Your task to perform on an android device: What's on the menu at Five Guys? Image 0: 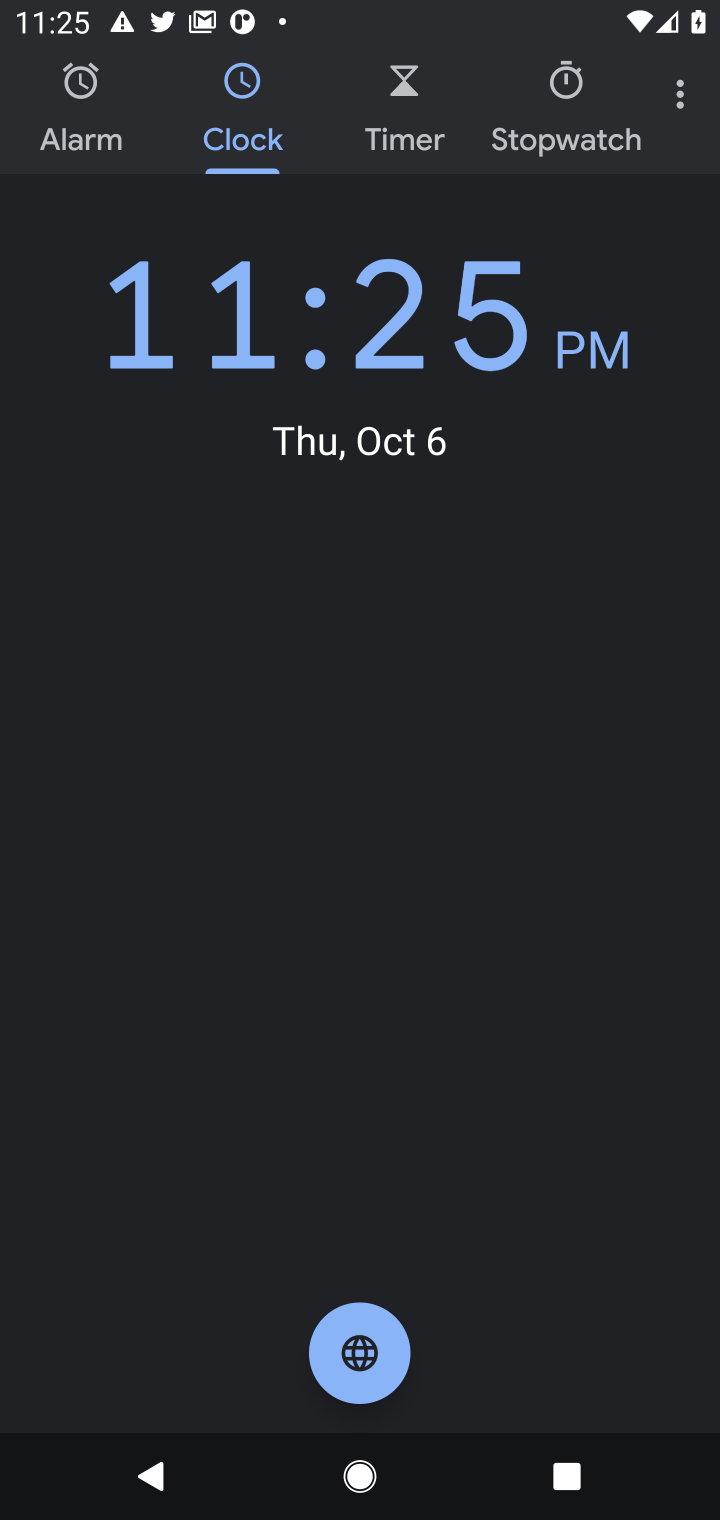
Step 0: press home button
Your task to perform on an android device: What's on the menu at Five Guys? Image 1: 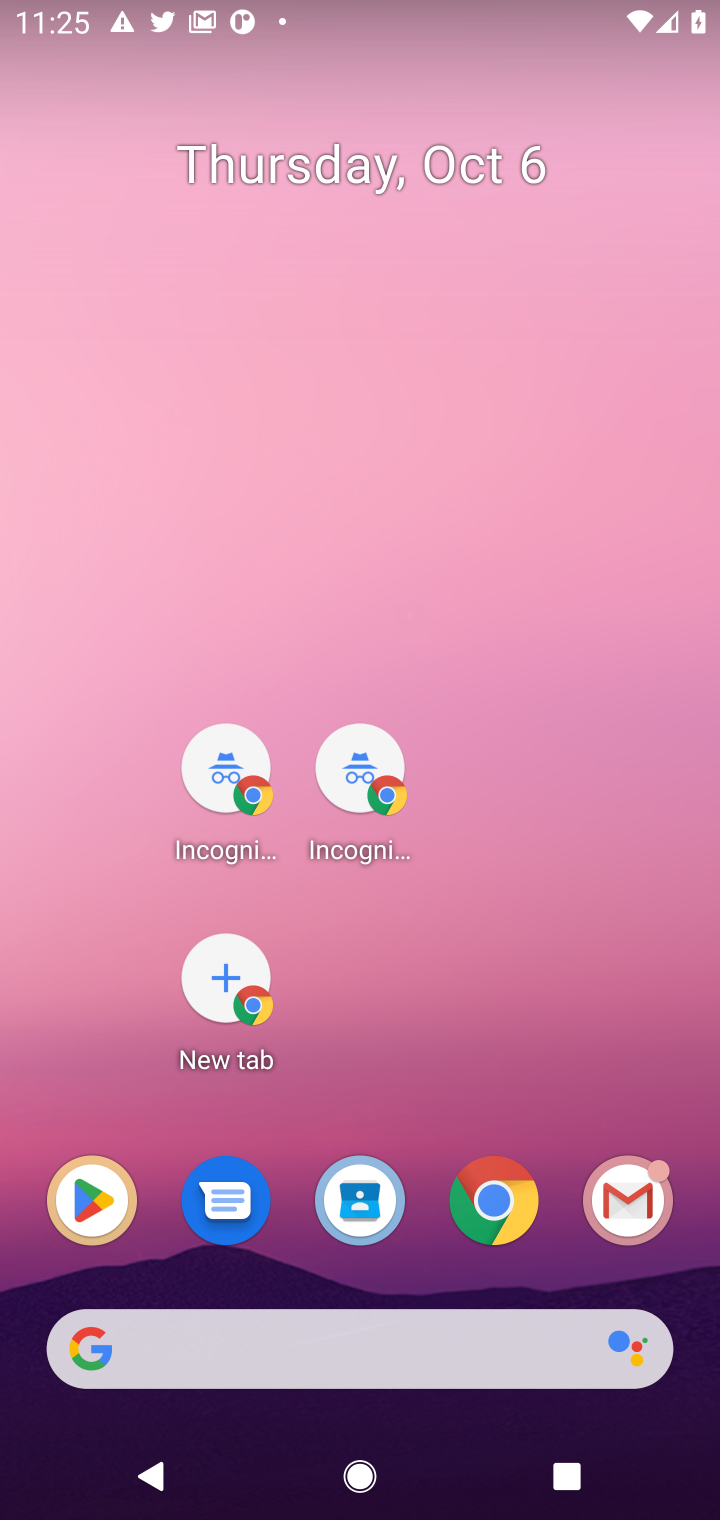
Step 1: click (504, 1189)
Your task to perform on an android device: What's on the menu at Five Guys? Image 2: 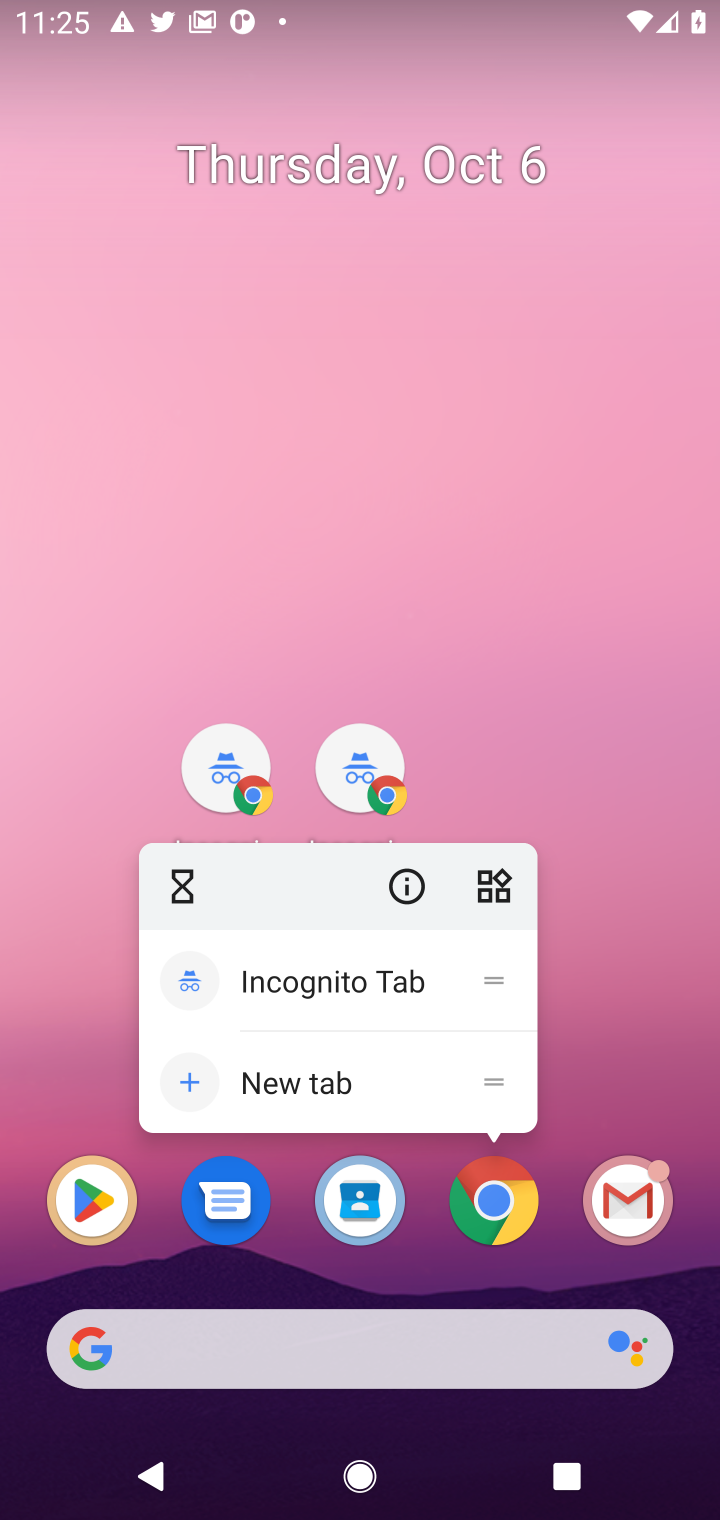
Step 2: press back button
Your task to perform on an android device: What's on the menu at Five Guys? Image 3: 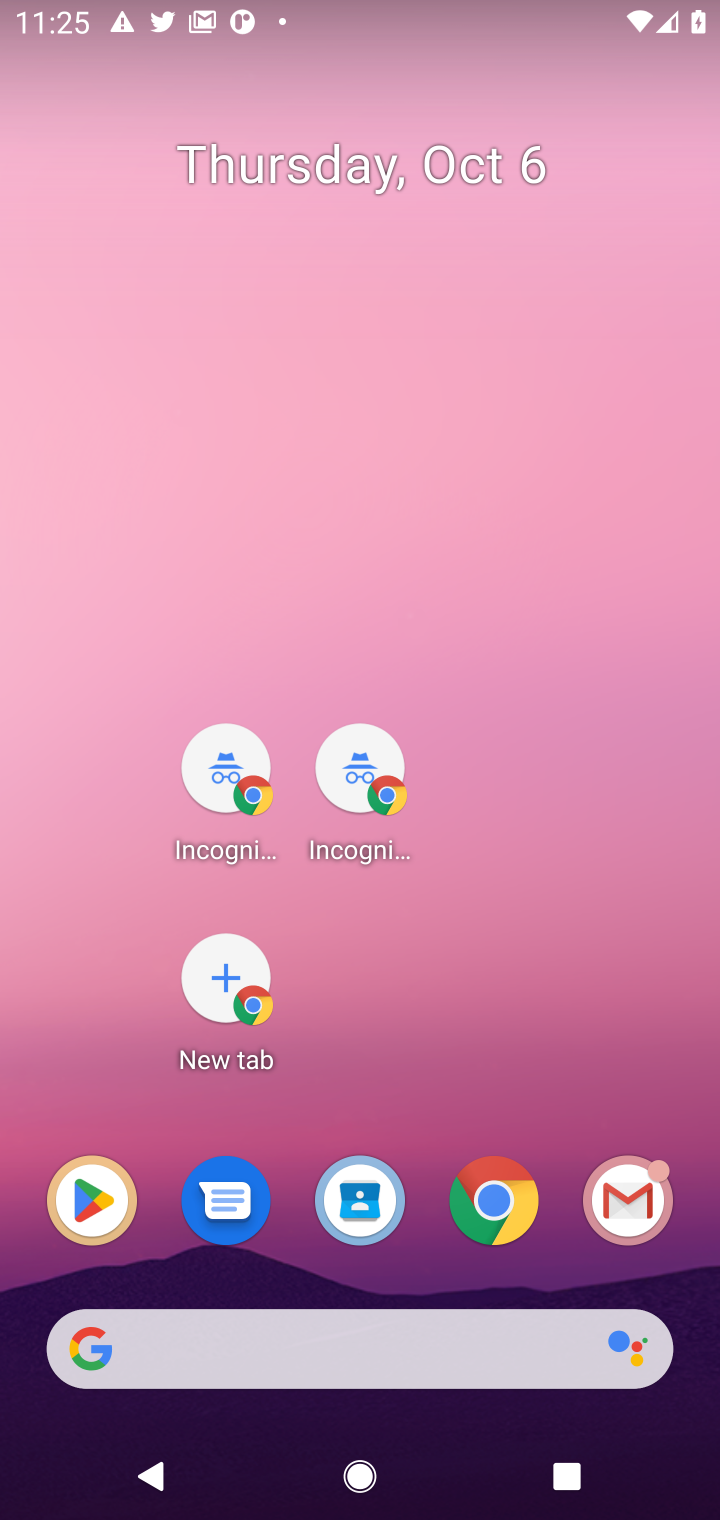
Step 3: press back button
Your task to perform on an android device: What's on the menu at Five Guys? Image 4: 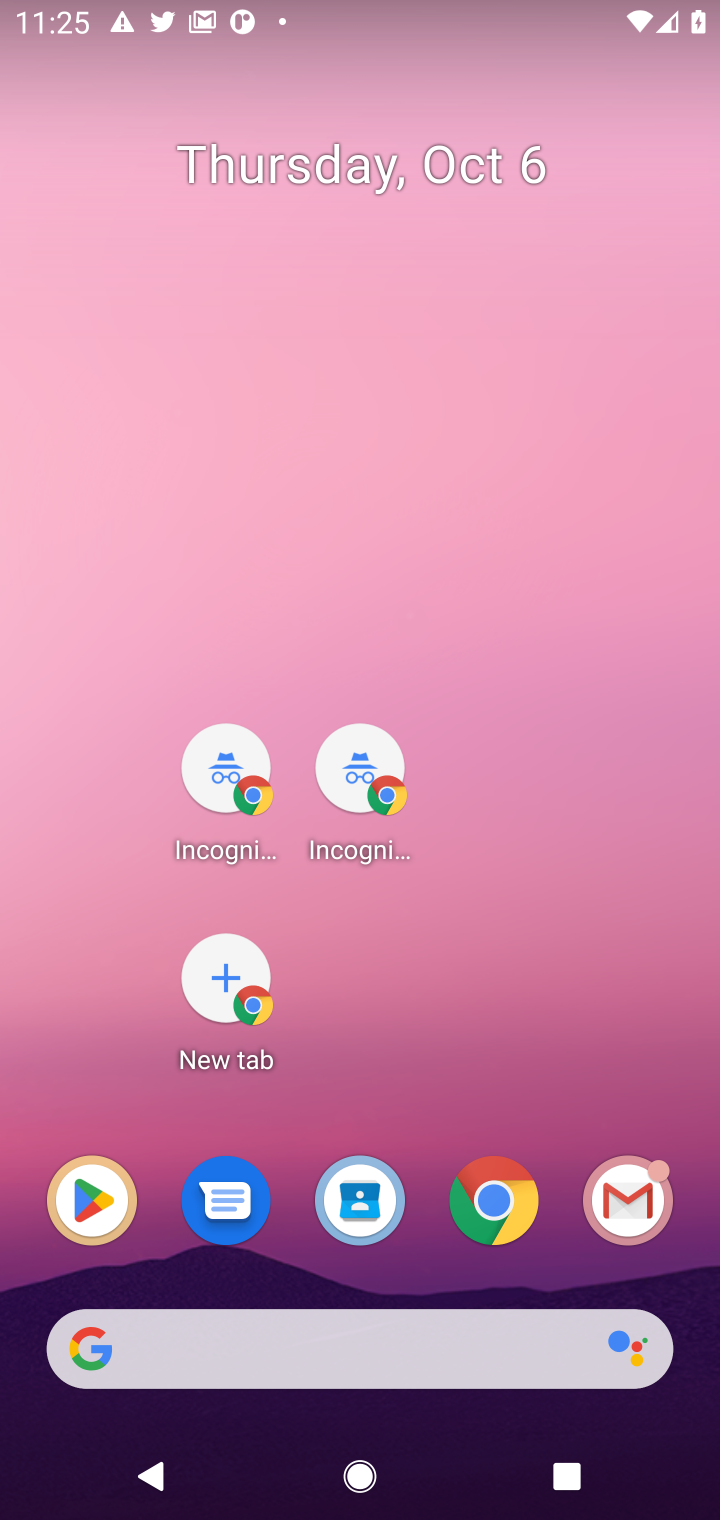
Step 4: click (472, 1204)
Your task to perform on an android device: What's on the menu at Five Guys? Image 5: 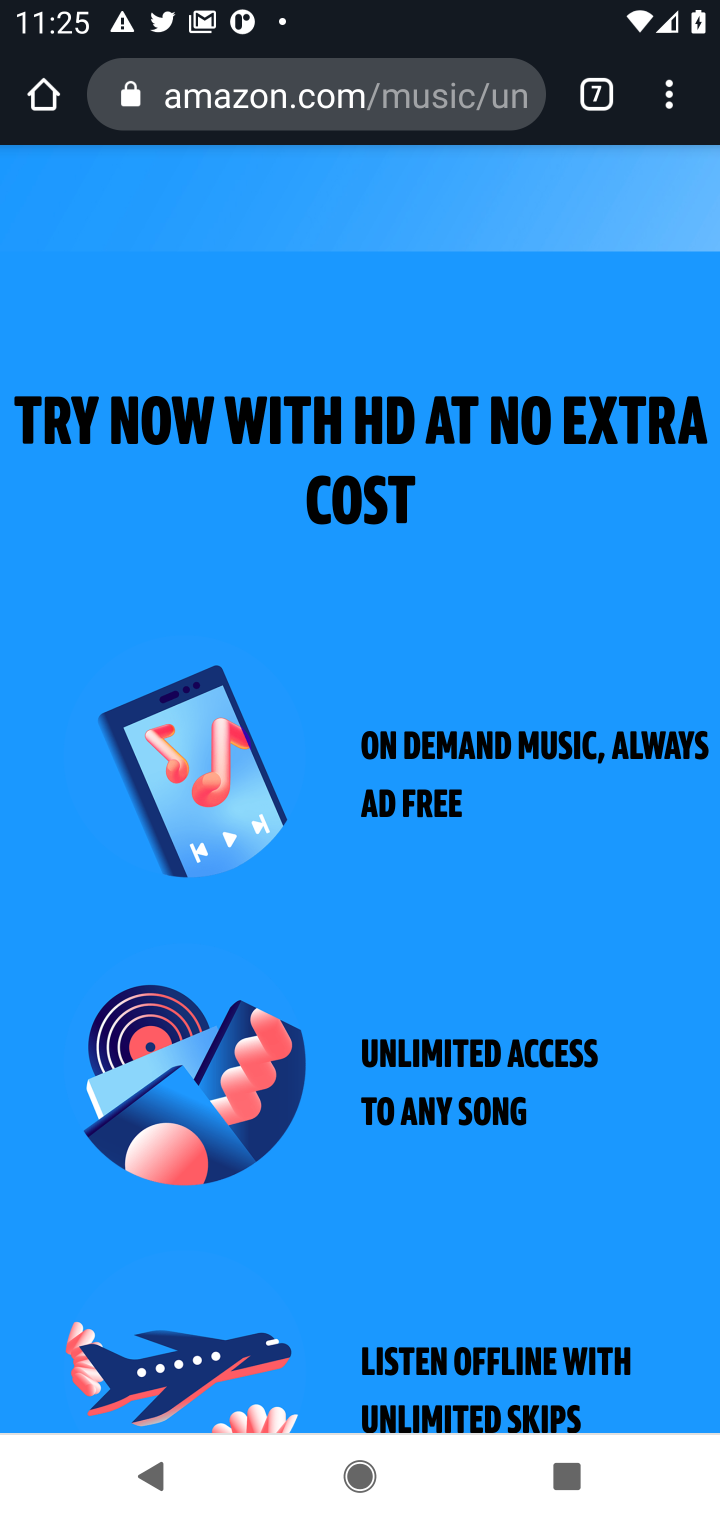
Step 5: click (464, 94)
Your task to perform on an android device: What's on the menu at Five Guys? Image 6: 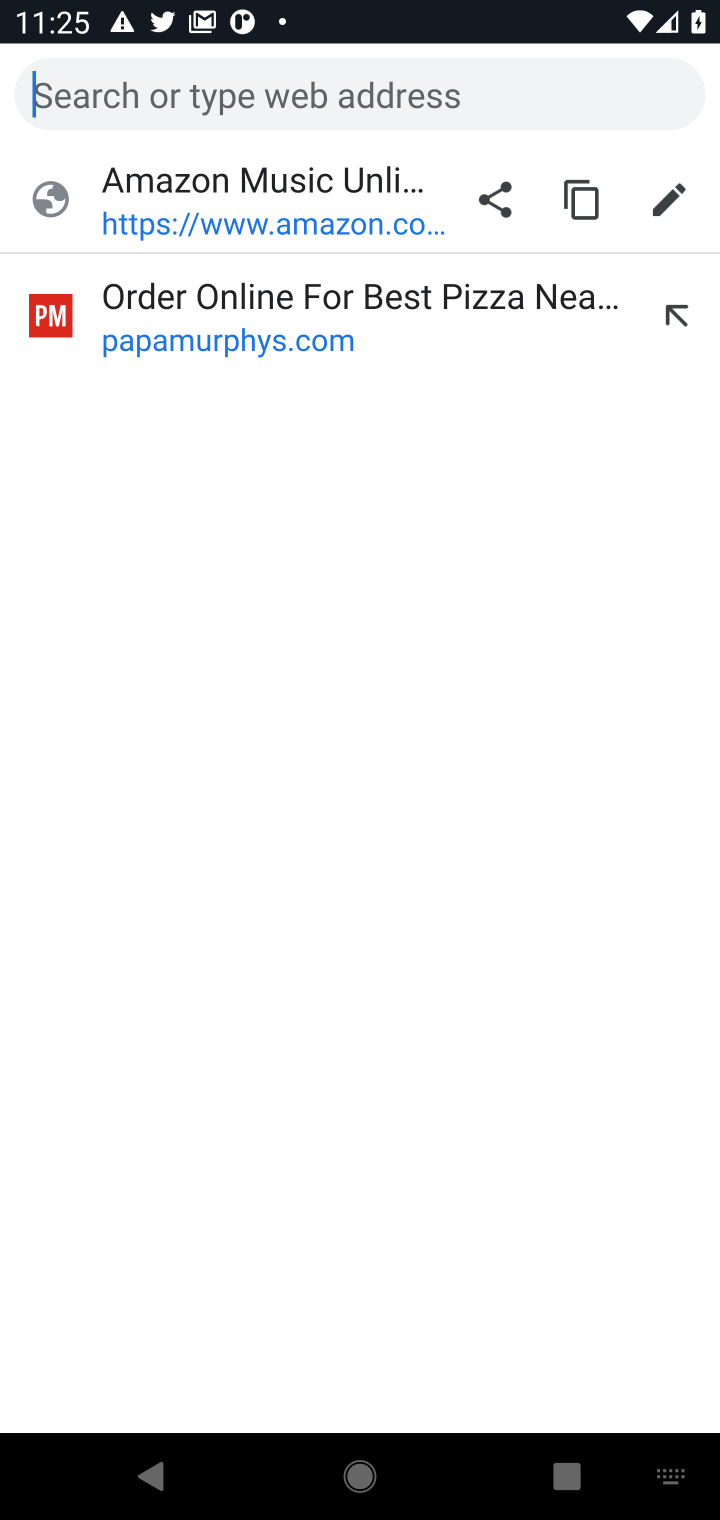
Step 6: type "whats on the menu at five guys"
Your task to perform on an android device: What's on the menu at Five Guys? Image 7: 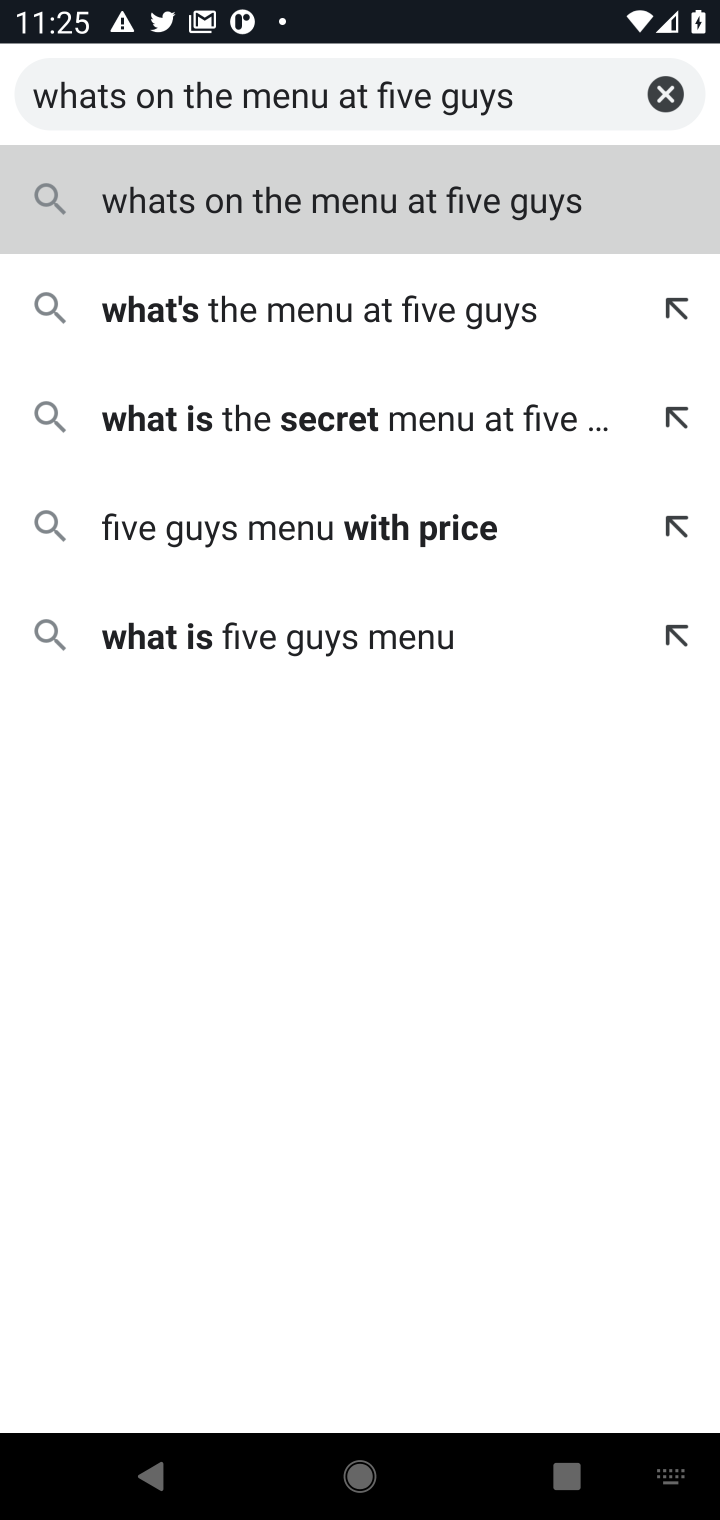
Step 7: type ""
Your task to perform on an android device: What's on the menu at Five Guys? Image 8: 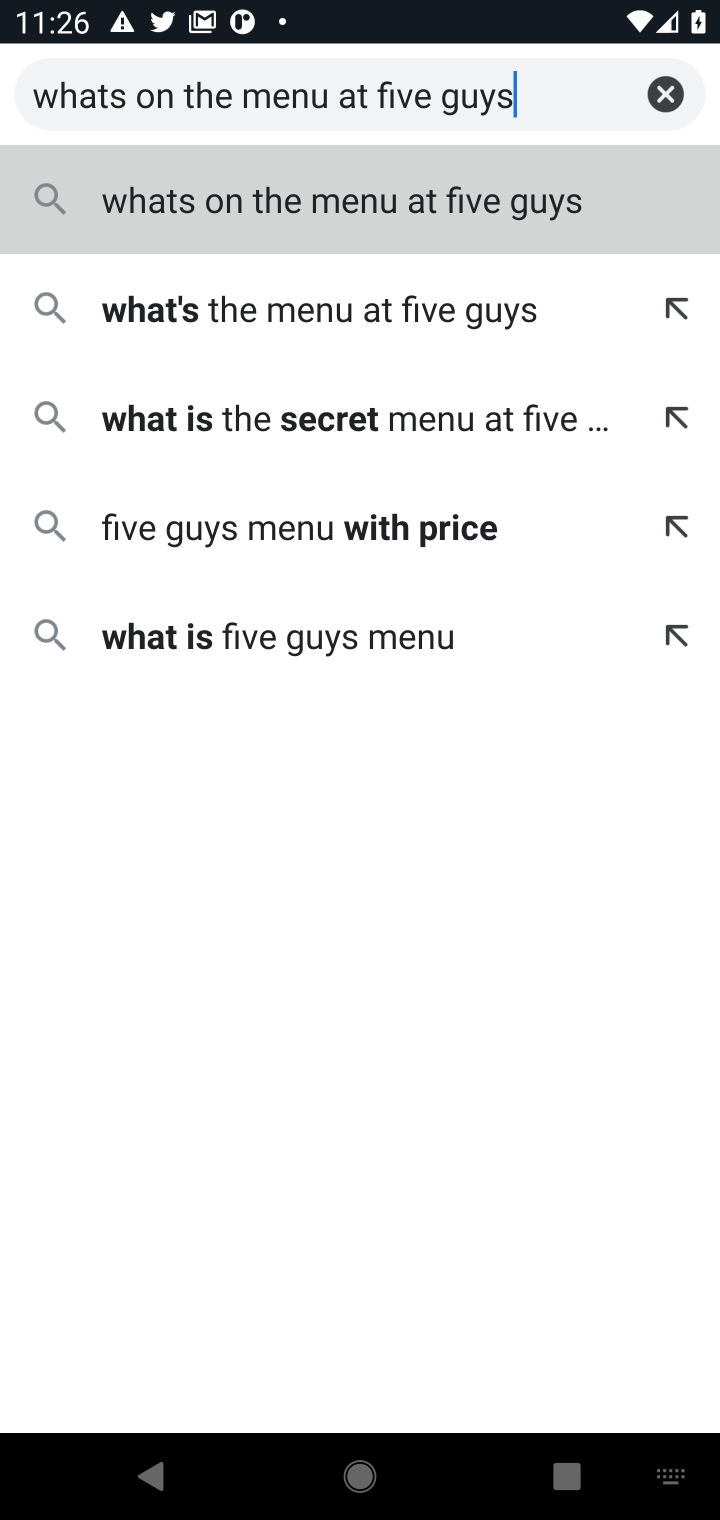
Step 8: click (372, 203)
Your task to perform on an android device: What's on the menu at Five Guys? Image 9: 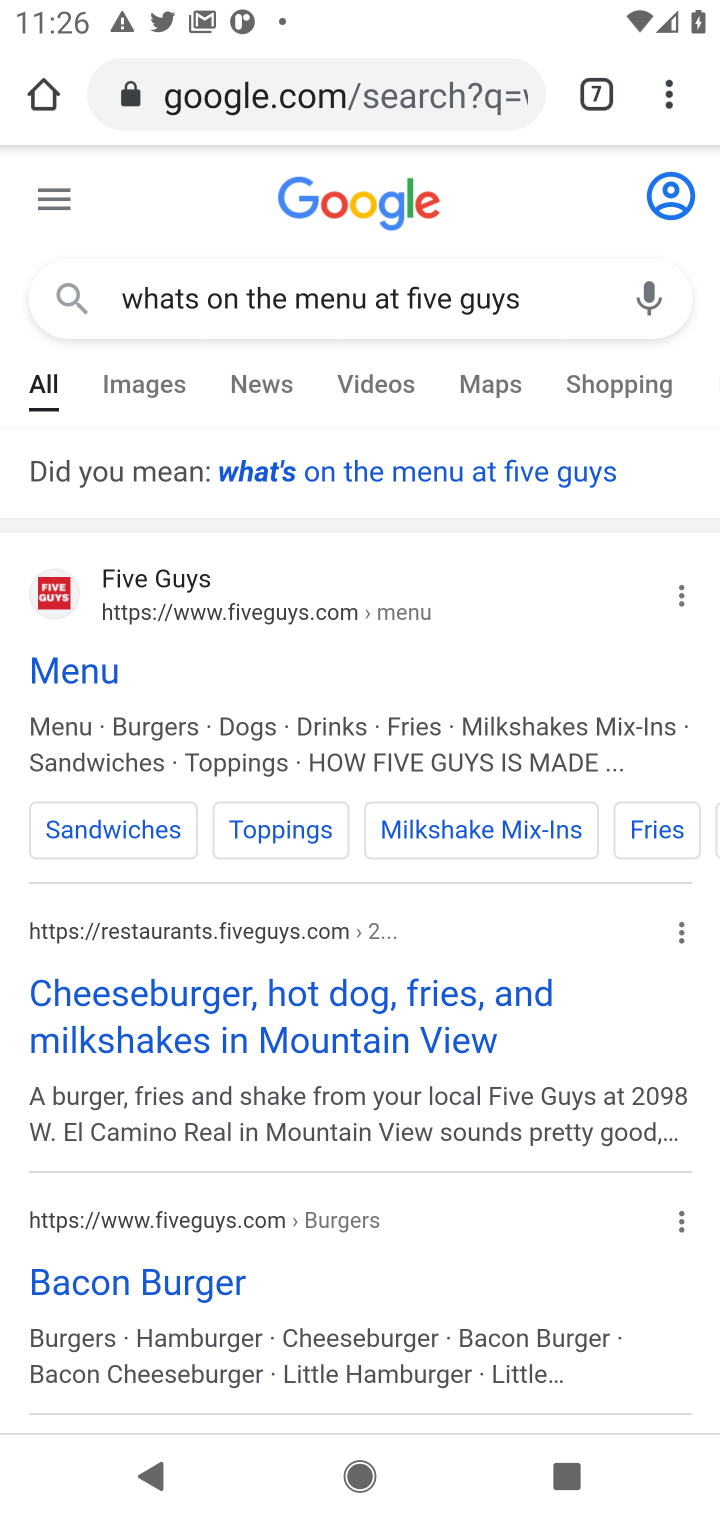
Step 9: drag from (452, 1177) to (468, 775)
Your task to perform on an android device: What's on the menu at Five Guys? Image 10: 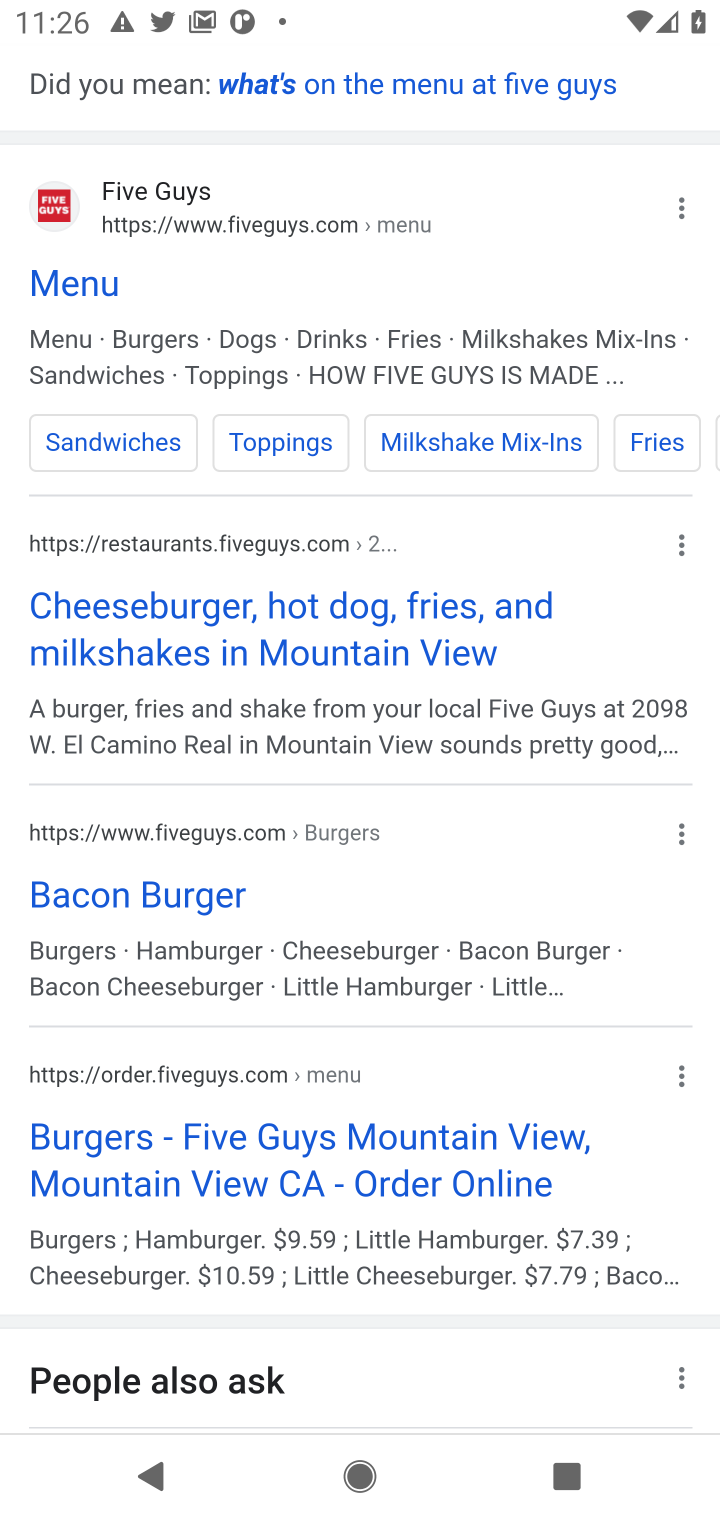
Step 10: drag from (434, 932) to (519, 508)
Your task to perform on an android device: What's on the menu at Five Guys? Image 11: 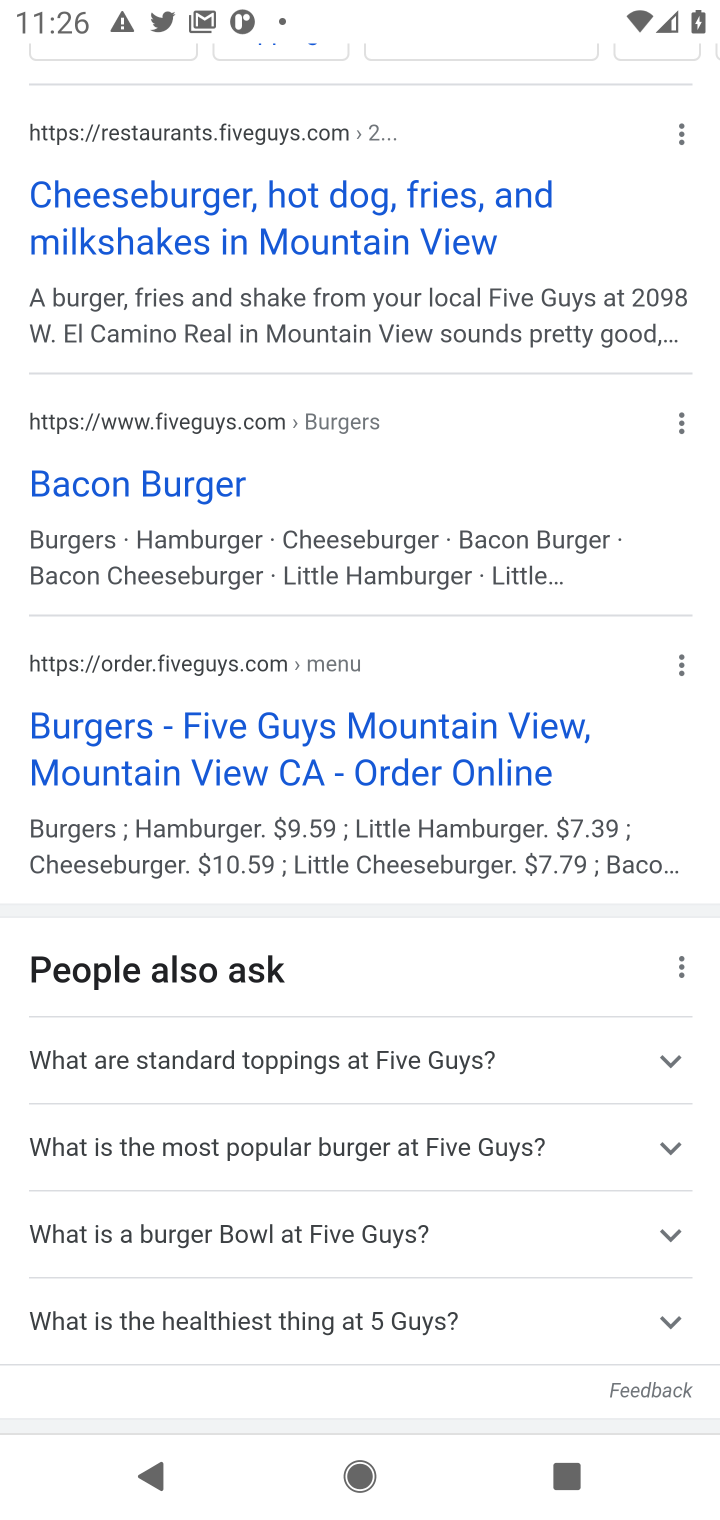
Step 11: drag from (346, 289) to (478, 1127)
Your task to perform on an android device: What's on the menu at Five Guys? Image 12: 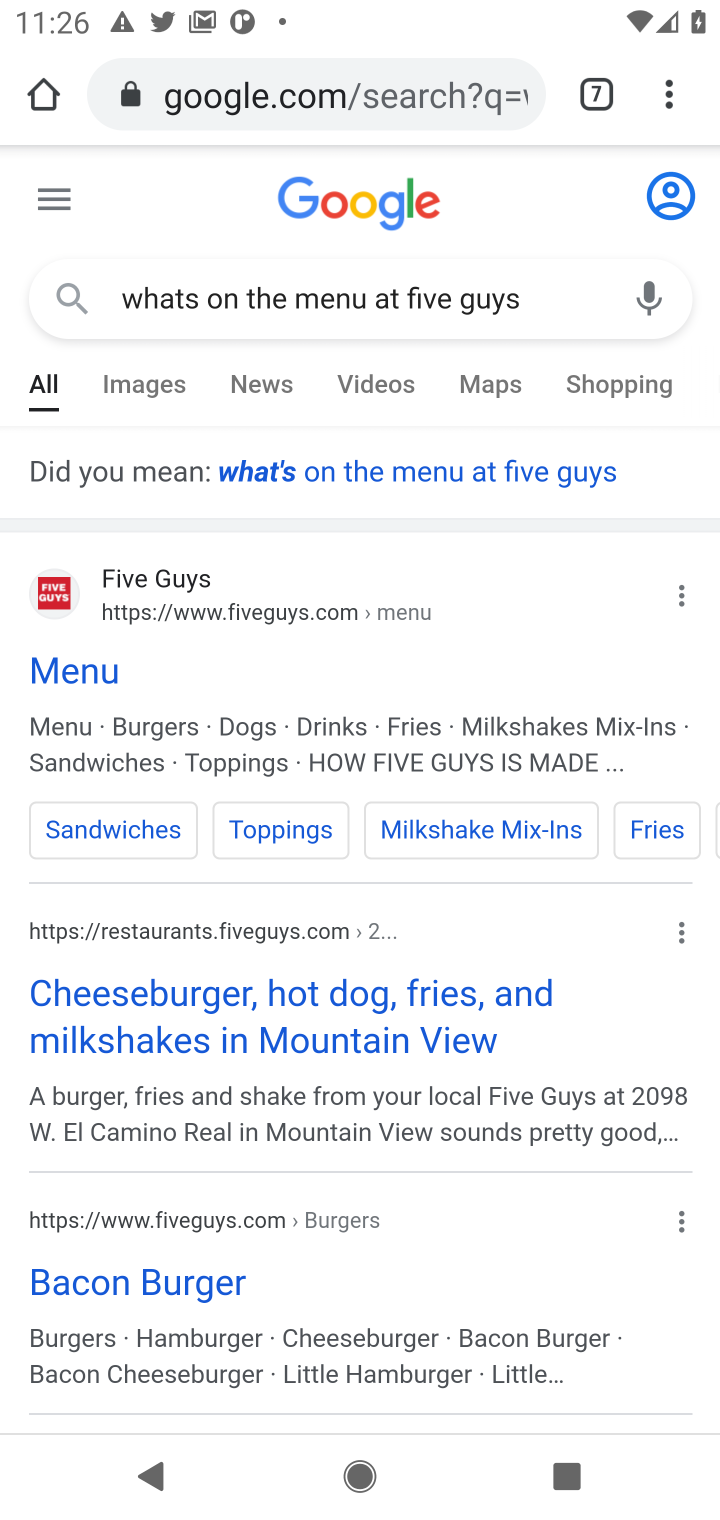
Step 12: click (99, 662)
Your task to perform on an android device: What's on the menu at Five Guys? Image 13: 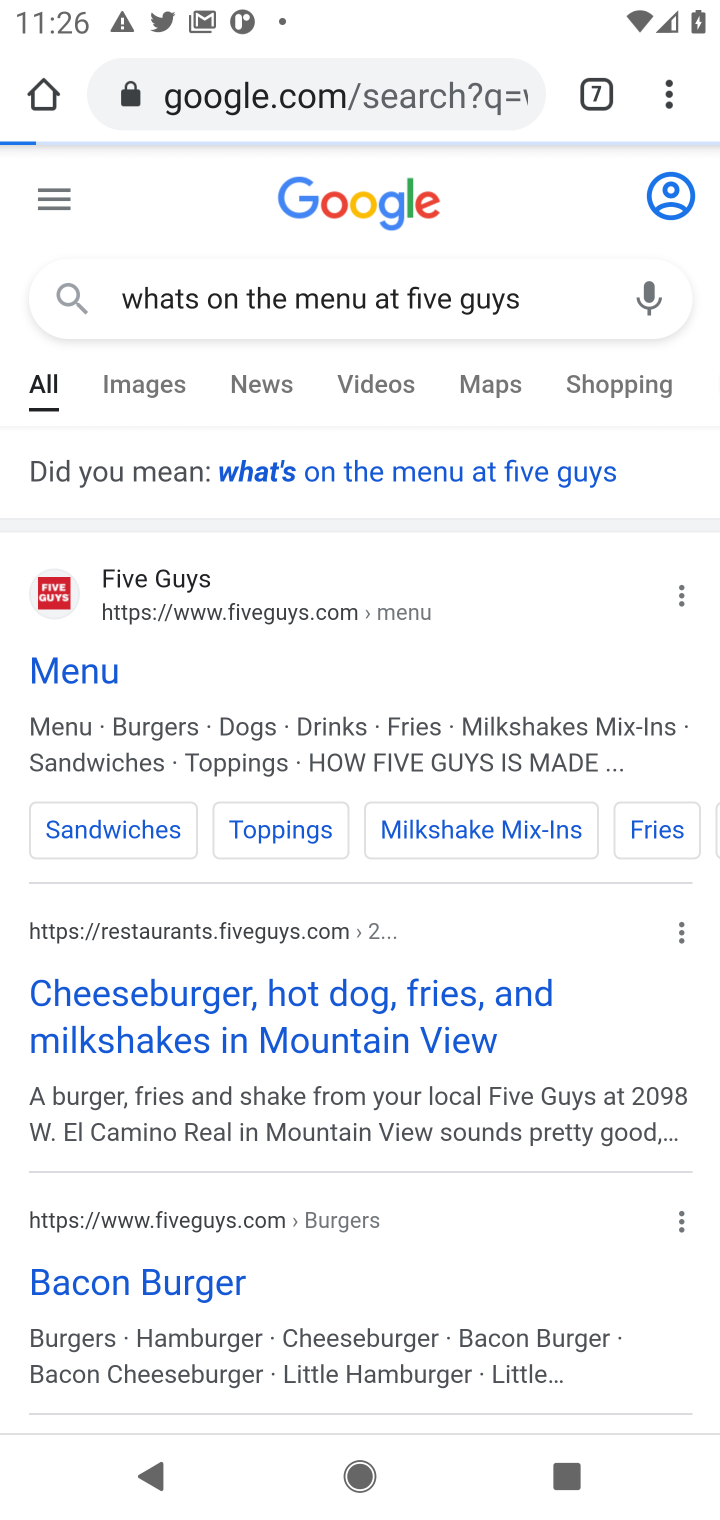
Step 13: click (71, 679)
Your task to perform on an android device: What's on the menu at Five Guys? Image 14: 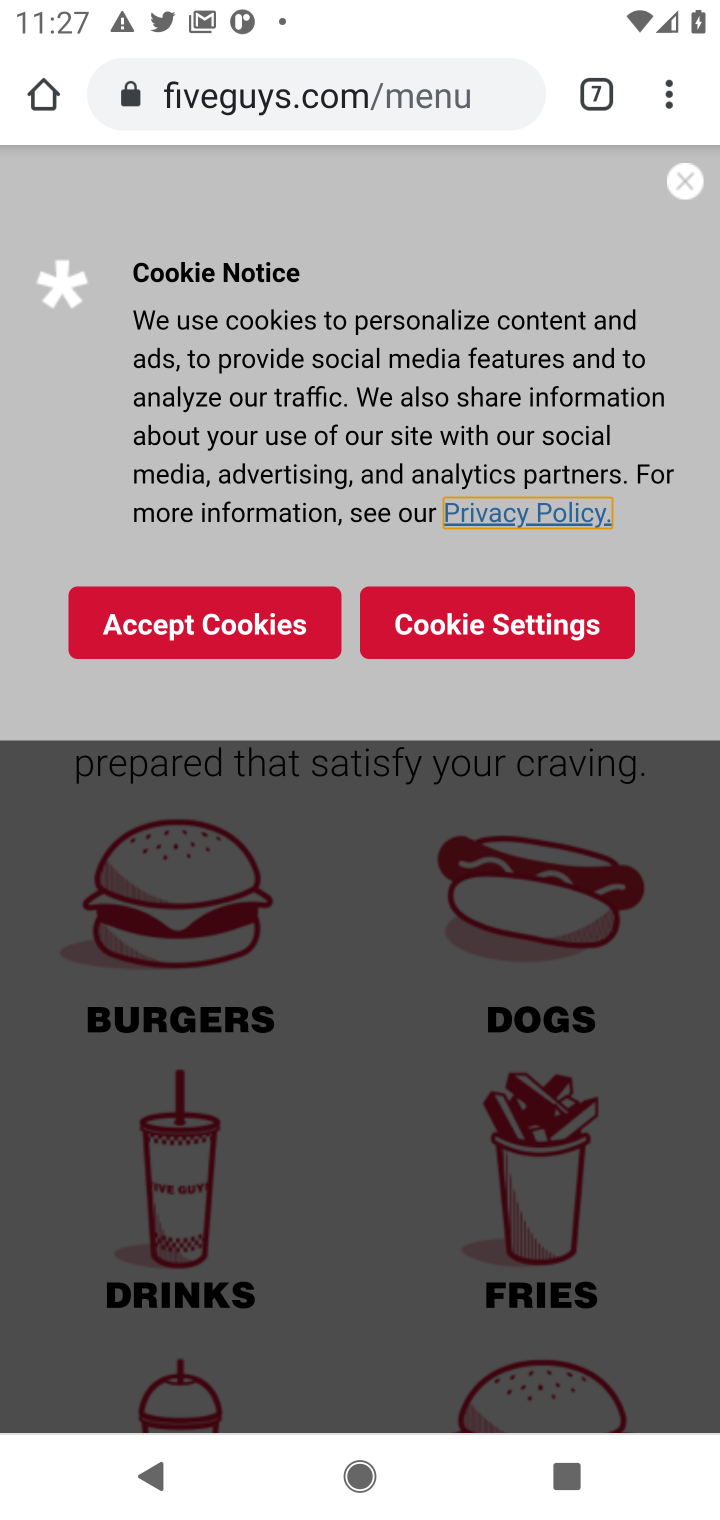
Step 14: click (219, 632)
Your task to perform on an android device: What's on the menu at Five Guys? Image 15: 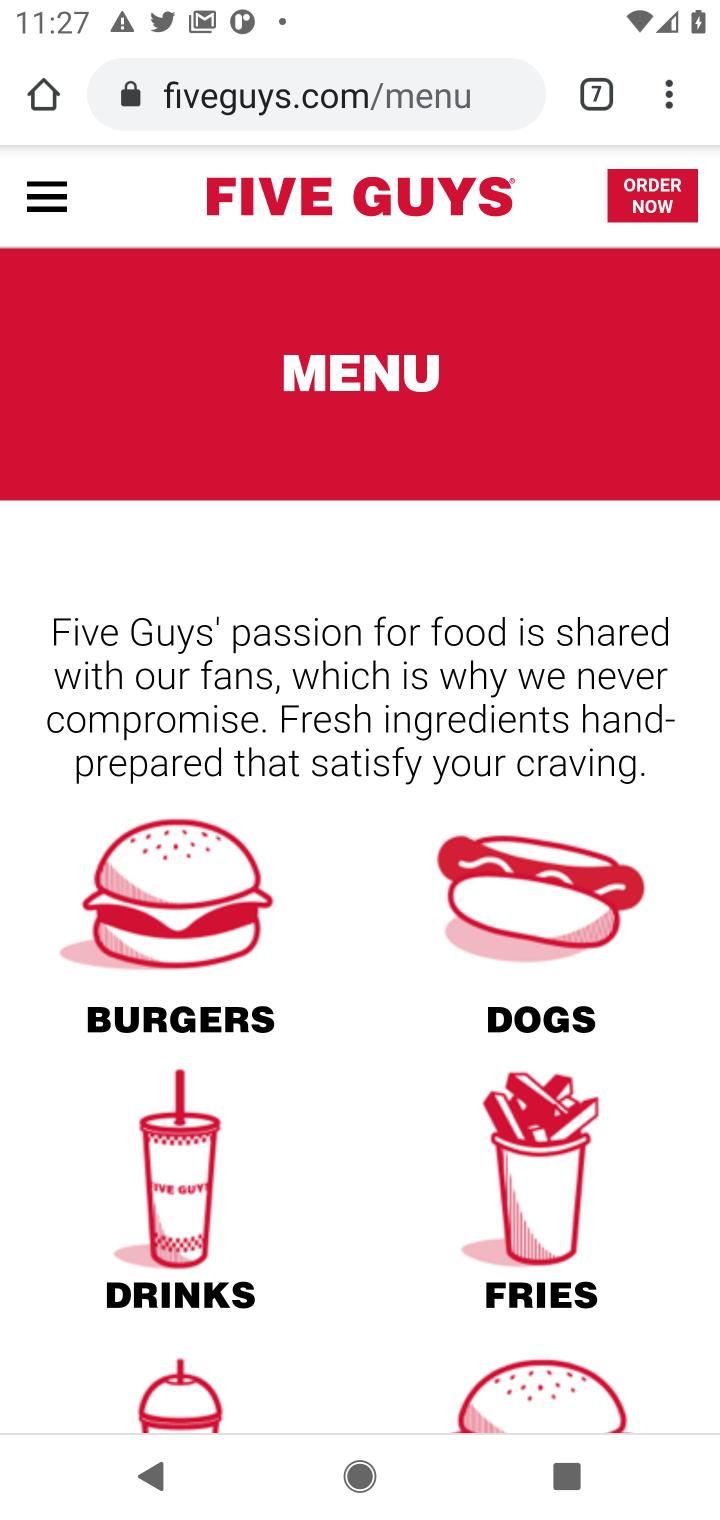
Step 15: task complete